Your task to perform on an android device: delete the emails in spam in the gmail app Image 0: 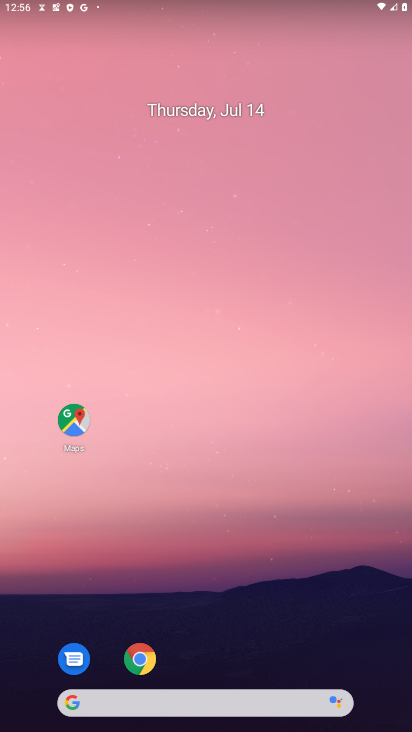
Step 0: drag from (43, 586) to (214, 189)
Your task to perform on an android device: delete the emails in spam in the gmail app Image 1: 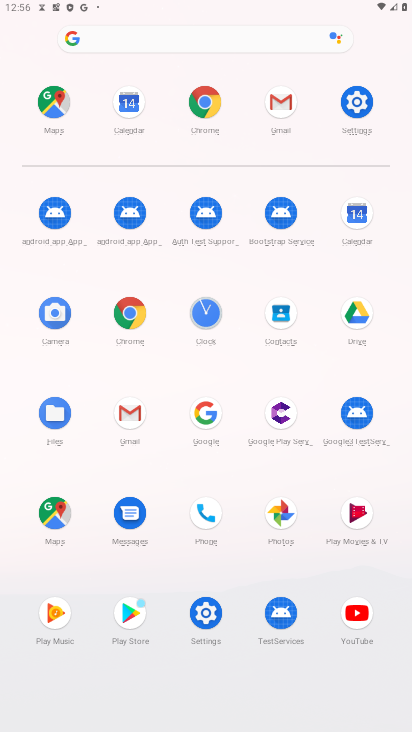
Step 1: click (148, 418)
Your task to perform on an android device: delete the emails in spam in the gmail app Image 2: 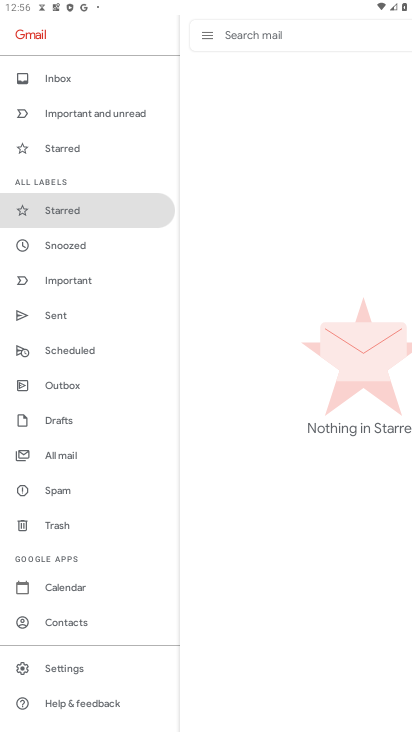
Step 2: click (78, 496)
Your task to perform on an android device: delete the emails in spam in the gmail app Image 3: 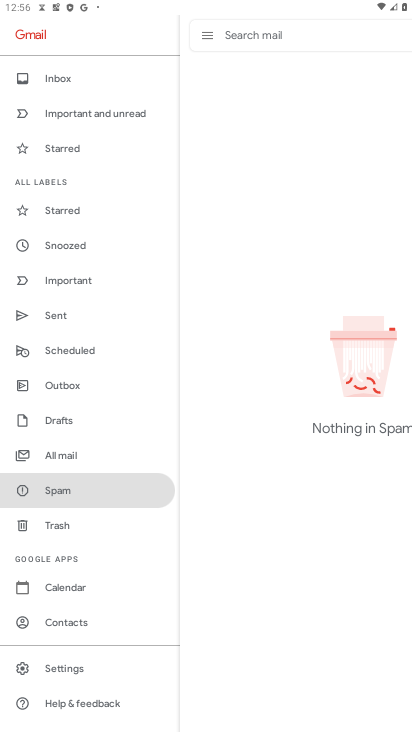
Step 3: task complete